Your task to perform on an android device: empty trash in google photos Image 0: 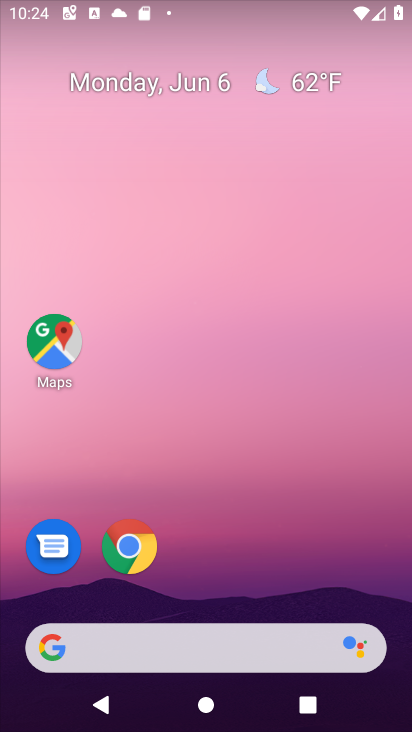
Step 0: drag from (401, 647) to (316, 145)
Your task to perform on an android device: empty trash in google photos Image 1: 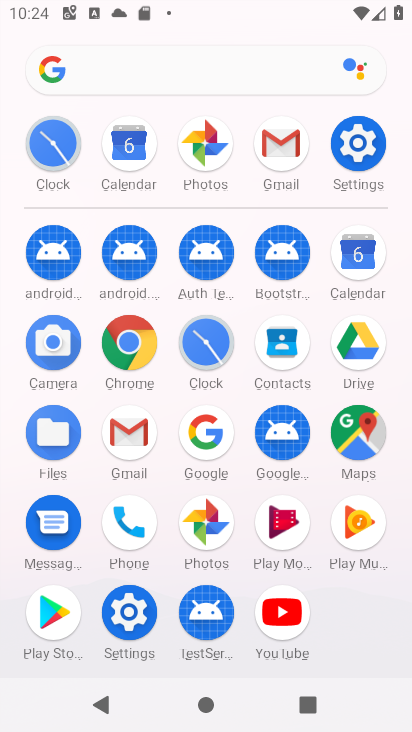
Step 1: click (202, 519)
Your task to perform on an android device: empty trash in google photos Image 2: 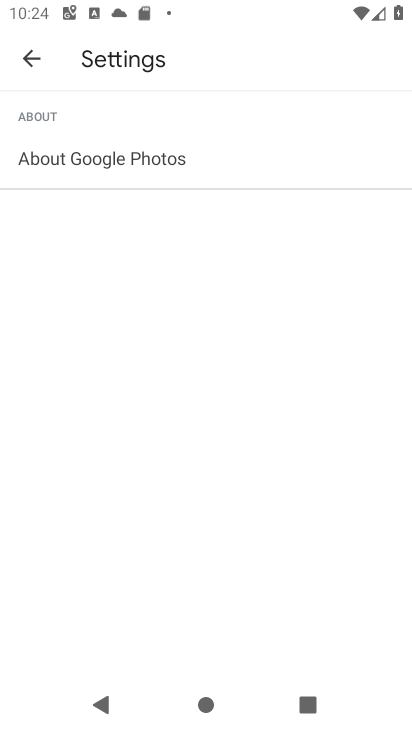
Step 2: task complete